Your task to perform on an android device: turn on showing notifications on the lock screen Image 0: 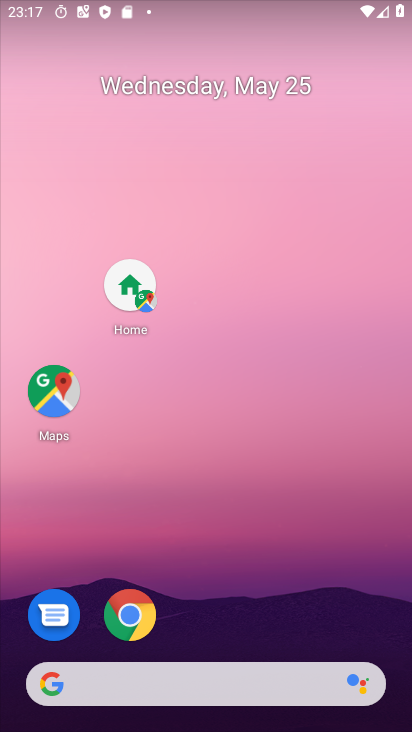
Step 0: press home button
Your task to perform on an android device: turn on showing notifications on the lock screen Image 1: 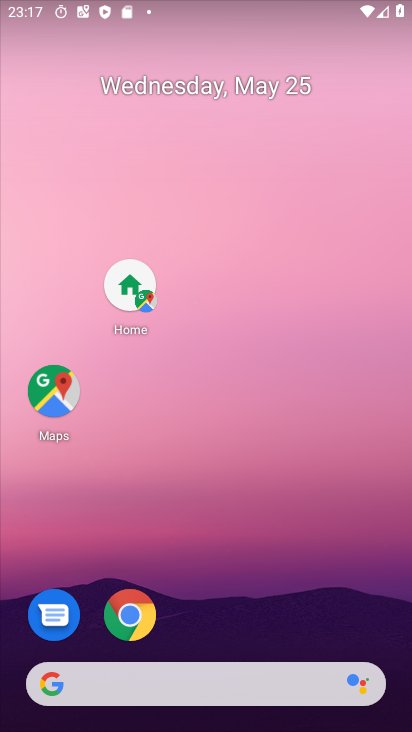
Step 1: drag from (311, 633) to (299, 212)
Your task to perform on an android device: turn on showing notifications on the lock screen Image 2: 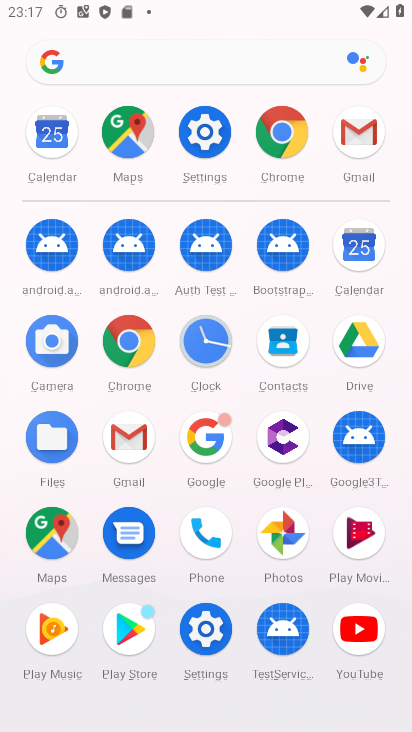
Step 2: click (198, 136)
Your task to perform on an android device: turn on showing notifications on the lock screen Image 3: 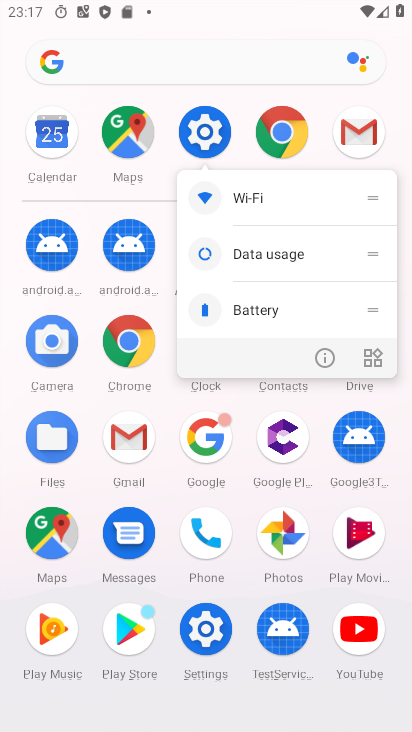
Step 3: click (208, 131)
Your task to perform on an android device: turn on showing notifications on the lock screen Image 4: 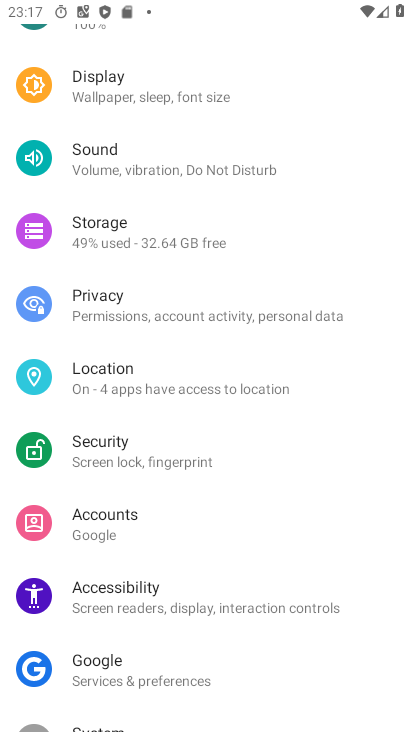
Step 4: drag from (298, 257) to (274, 731)
Your task to perform on an android device: turn on showing notifications on the lock screen Image 5: 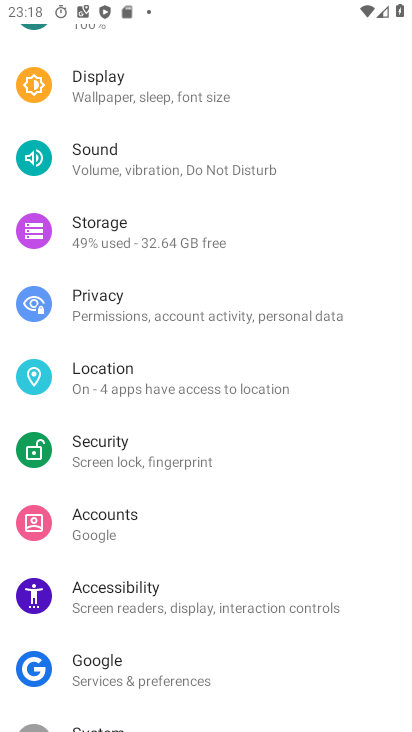
Step 5: drag from (302, 130) to (198, 679)
Your task to perform on an android device: turn on showing notifications on the lock screen Image 6: 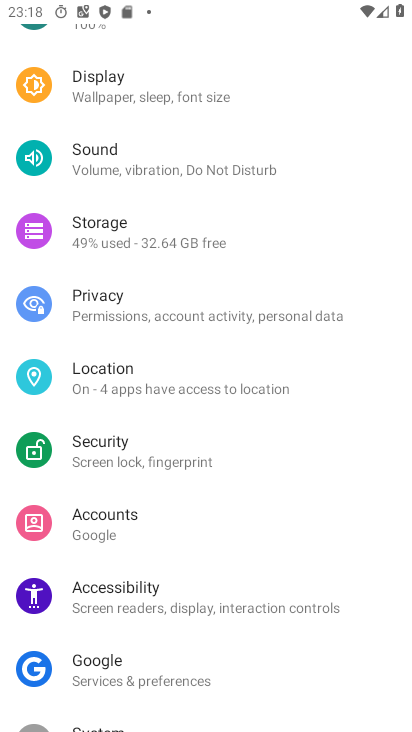
Step 6: drag from (288, 90) to (202, 715)
Your task to perform on an android device: turn on showing notifications on the lock screen Image 7: 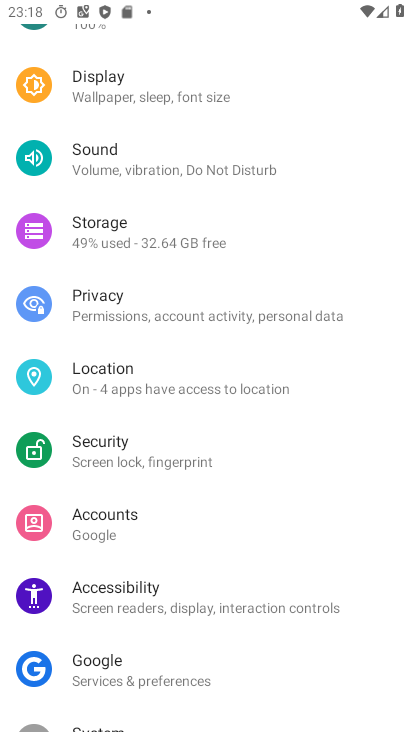
Step 7: drag from (255, 129) to (191, 696)
Your task to perform on an android device: turn on showing notifications on the lock screen Image 8: 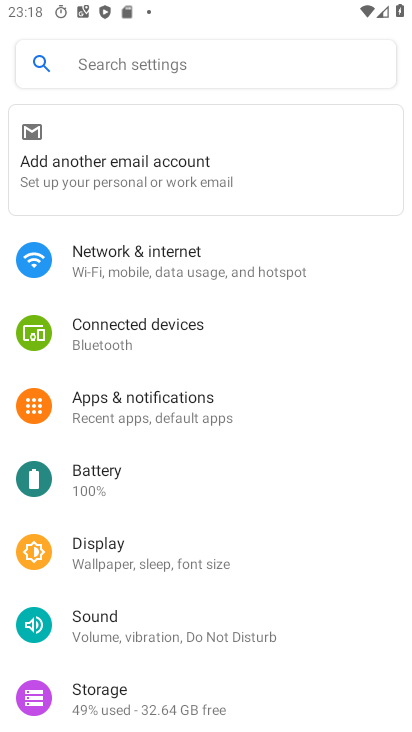
Step 8: click (132, 415)
Your task to perform on an android device: turn on showing notifications on the lock screen Image 9: 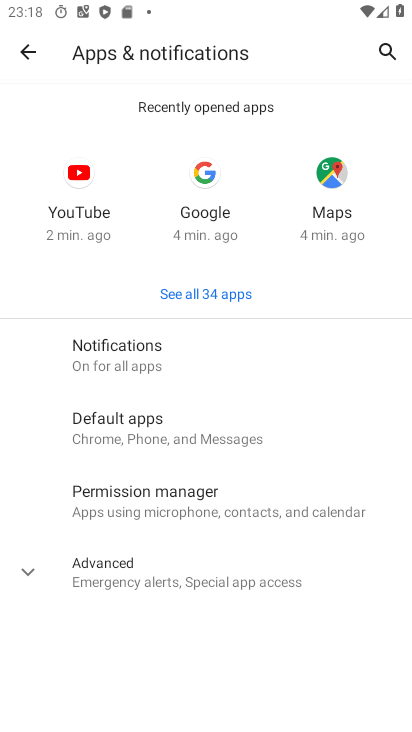
Step 9: click (108, 357)
Your task to perform on an android device: turn on showing notifications on the lock screen Image 10: 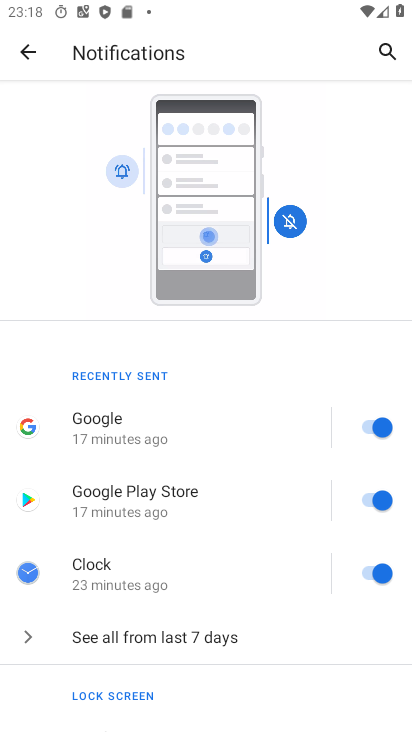
Step 10: drag from (280, 386) to (289, 55)
Your task to perform on an android device: turn on showing notifications on the lock screen Image 11: 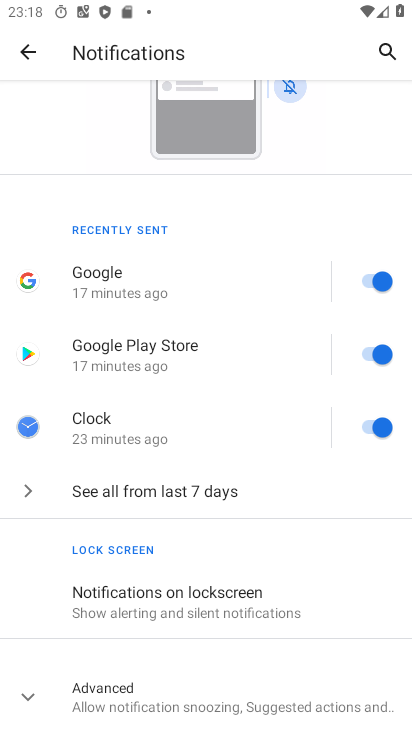
Step 11: click (157, 592)
Your task to perform on an android device: turn on showing notifications on the lock screen Image 12: 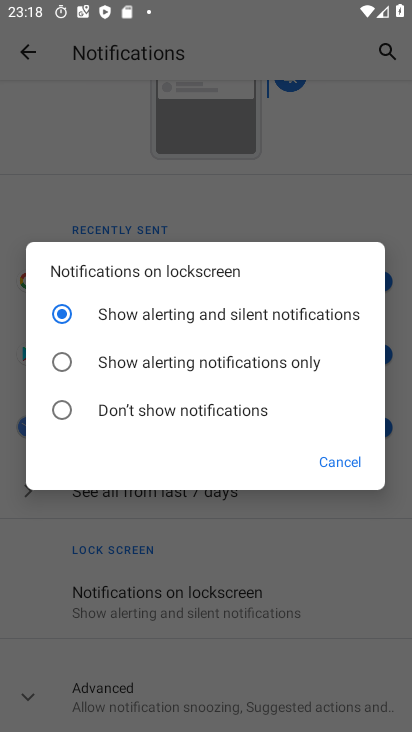
Step 12: task complete